Your task to perform on an android device: turn off data saver in the chrome app Image 0: 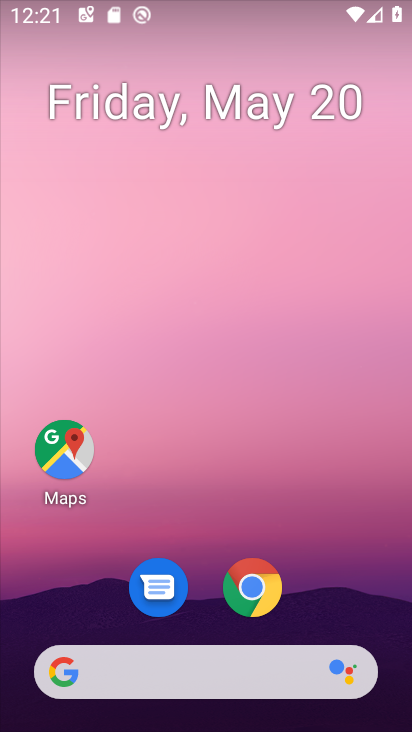
Step 0: drag from (378, 605) to (375, 262)
Your task to perform on an android device: turn off data saver in the chrome app Image 1: 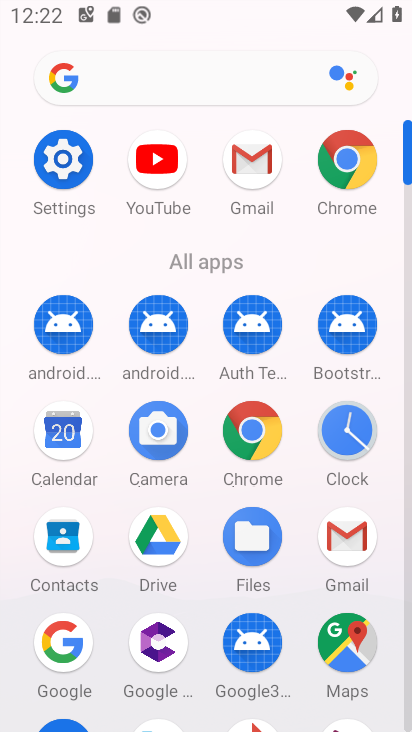
Step 1: click (261, 434)
Your task to perform on an android device: turn off data saver in the chrome app Image 2: 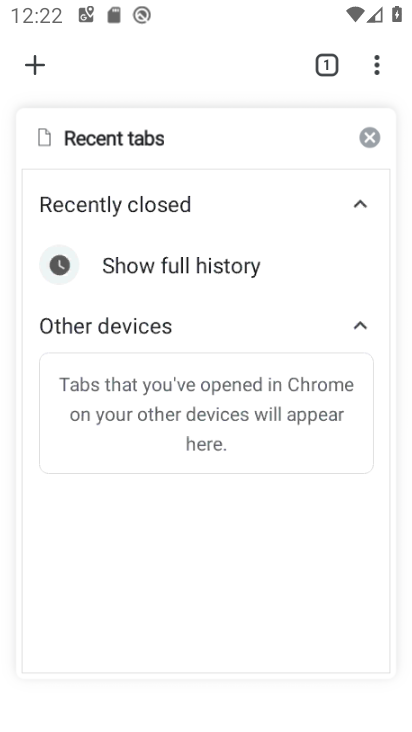
Step 2: press back button
Your task to perform on an android device: turn off data saver in the chrome app Image 3: 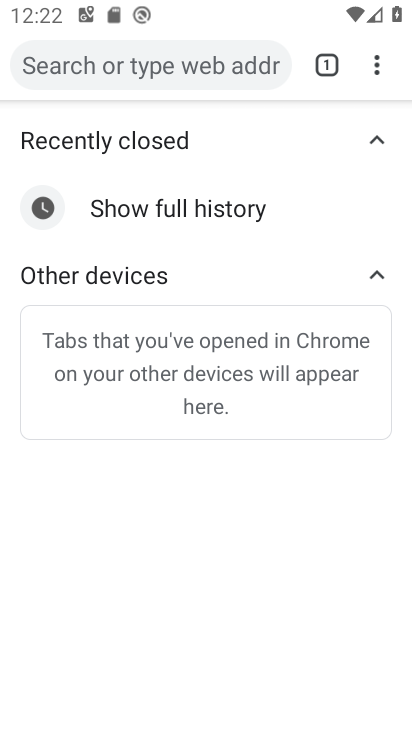
Step 3: click (377, 72)
Your task to perform on an android device: turn off data saver in the chrome app Image 4: 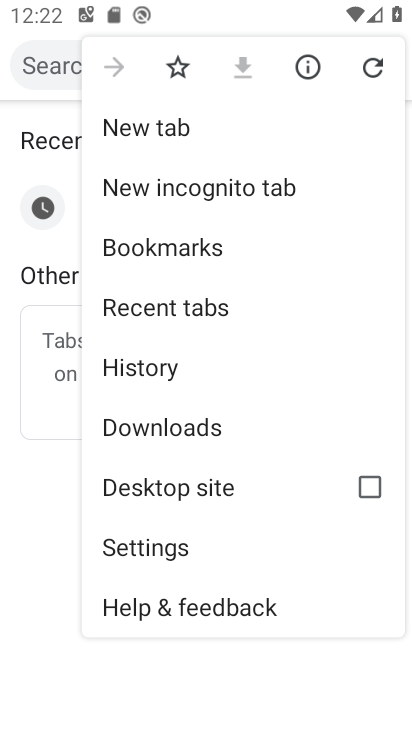
Step 4: drag from (289, 407) to (291, 314)
Your task to perform on an android device: turn off data saver in the chrome app Image 5: 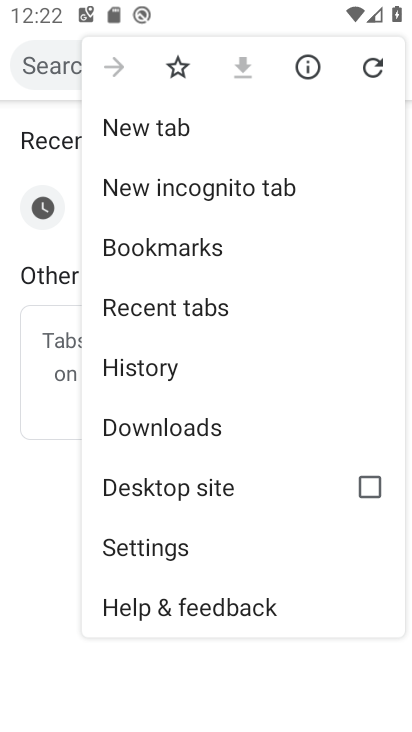
Step 5: click (190, 540)
Your task to perform on an android device: turn off data saver in the chrome app Image 6: 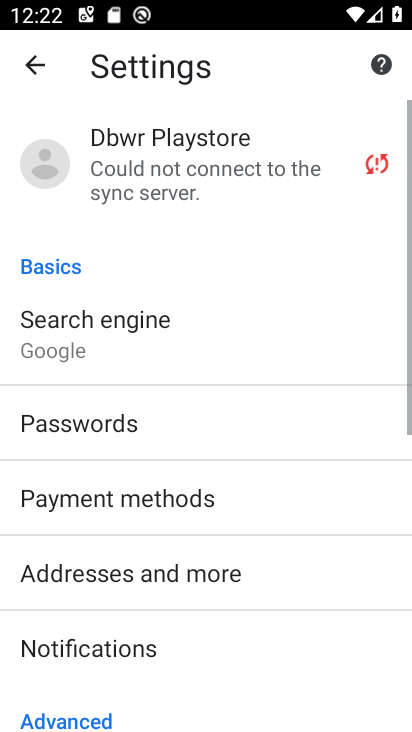
Step 6: drag from (277, 584) to (290, 497)
Your task to perform on an android device: turn off data saver in the chrome app Image 7: 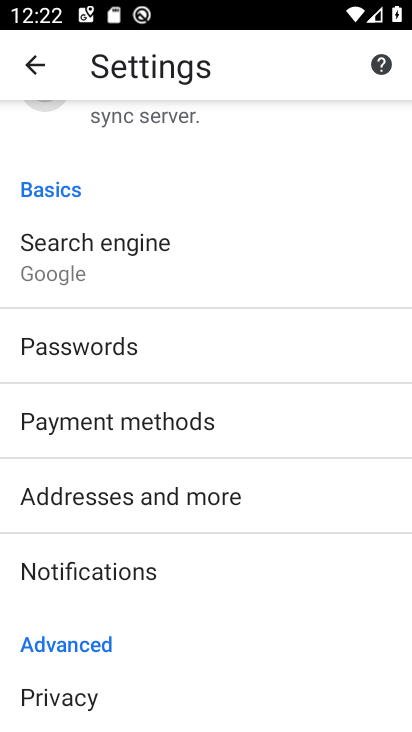
Step 7: drag from (289, 619) to (287, 535)
Your task to perform on an android device: turn off data saver in the chrome app Image 8: 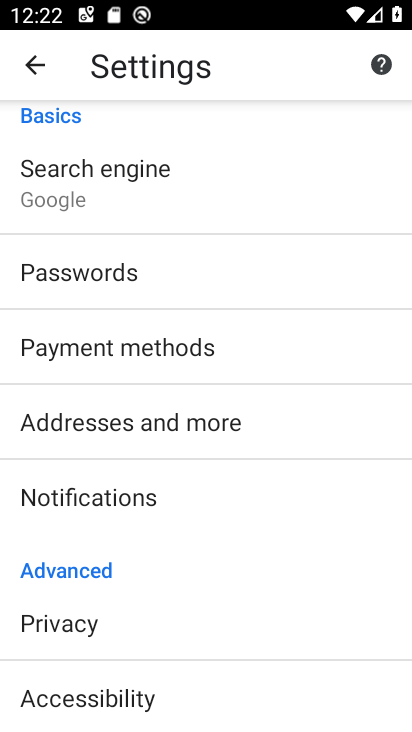
Step 8: drag from (286, 611) to (294, 529)
Your task to perform on an android device: turn off data saver in the chrome app Image 9: 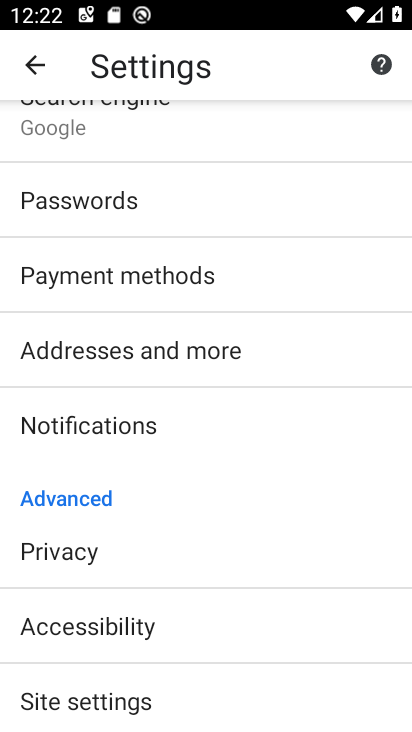
Step 9: drag from (316, 564) to (323, 473)
Your task to perform on an android device: turn off data saver in the chrome app Image 10: 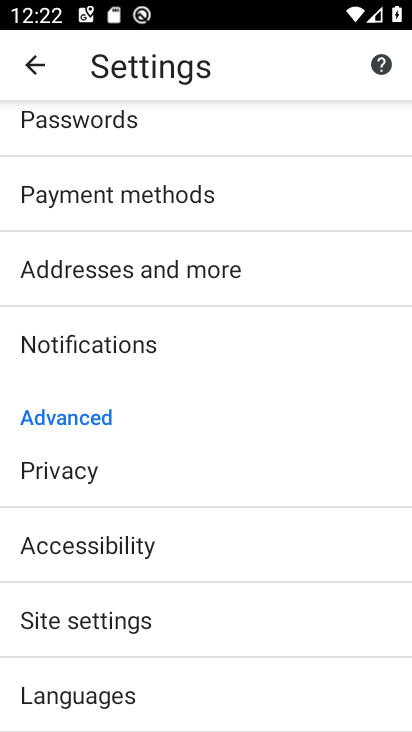
Step 10: drag from (300, 605) to (303, 522)
Your task to perform on an android device: turn off data saver in the chrome app Image 11: 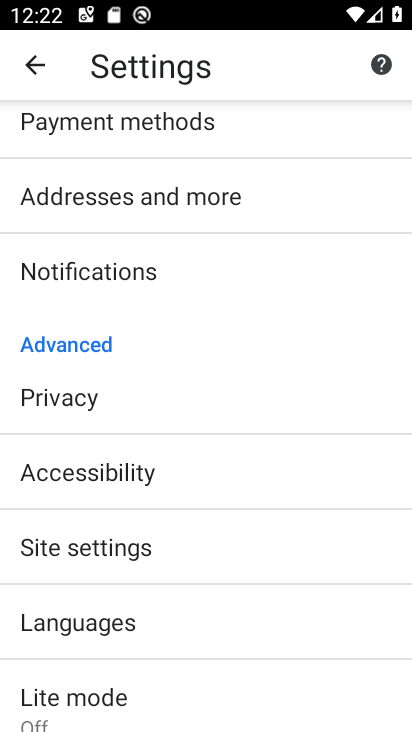
Step 11: drag from (311, 629) to (319, 549)
Your task to perform on an android device: turn off data saver in the chrome app Image 12: 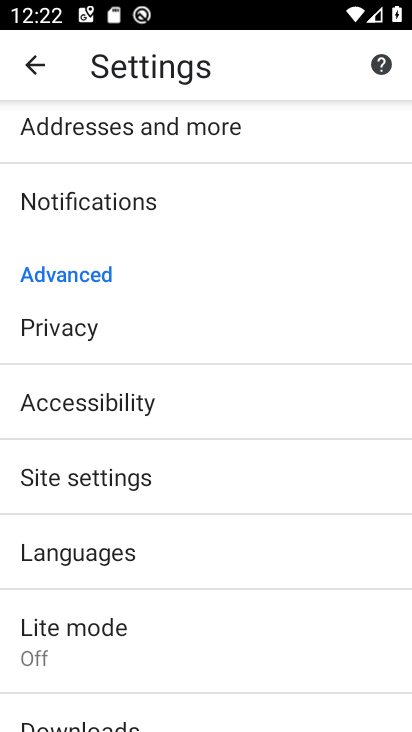
Step 12: drag from (313, 617) to (303, 539)
Your task to perform on an android device: turn off data saver in the chrome app Image 13: 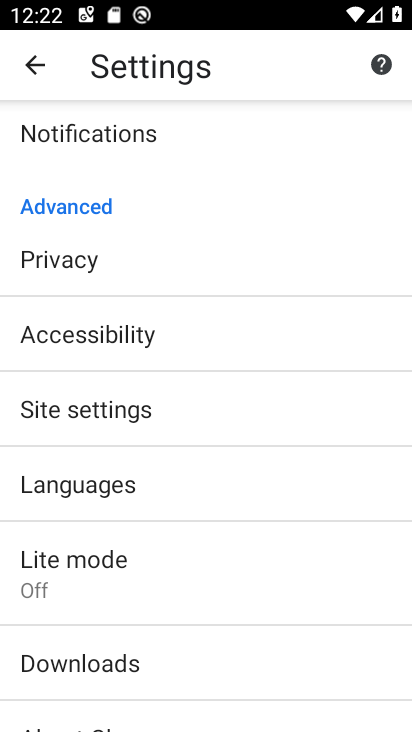
Step 13: click (280, 602)
Your task to perform on an android device: turn off data saver in the chrome app Image 14: 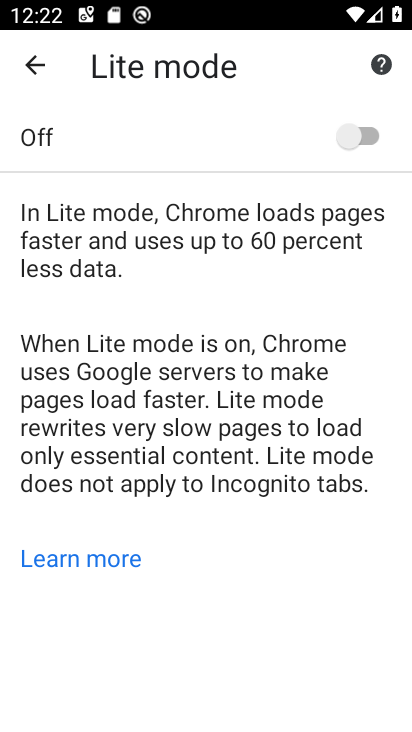
Step 14: task complete